Your task to perform on an android device: Open calendar and show me the second week of next month Image 0: 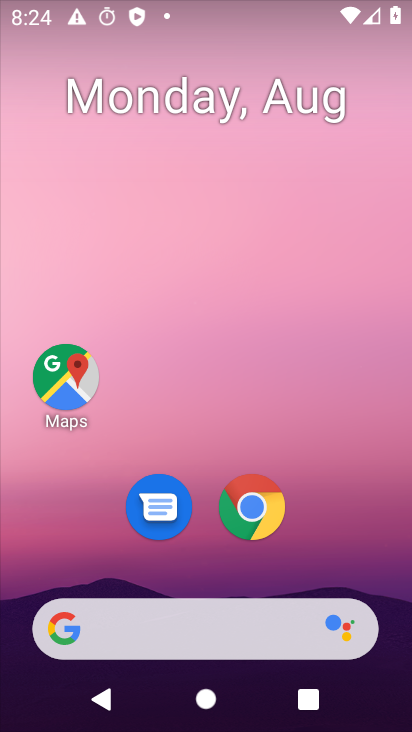
Step 0: drag from (160, 628) to (282, 149)
Your task to perform on an android device: Open calendar and show me the second week of next month Image 1: 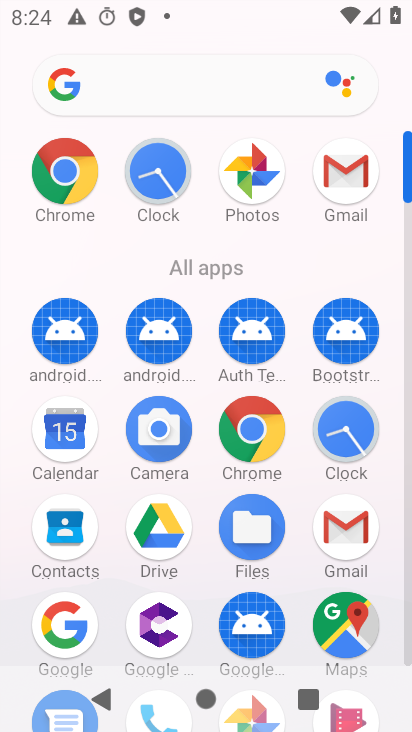
Step 1: click (67, 439)
Your task to perform on an android device: Open calendar and show me the second week of next month Image 2: 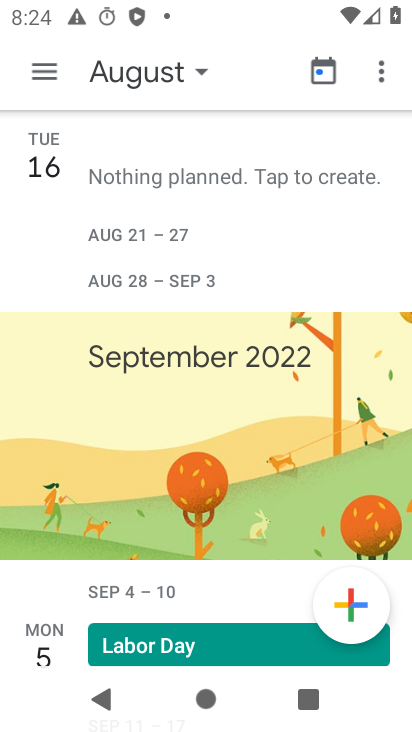
Step 2: click (178, 78)
Your task to perform on an android device: Open calendar and show me the second week of next month Image 3: 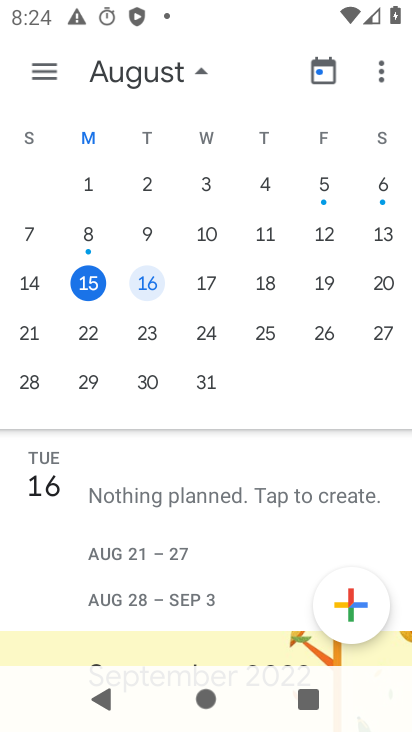
Step 3: drag from (354, 299) to (36, 295)
Your task to perform on an android device: Open calendar and show me the second week of next month Image 4: 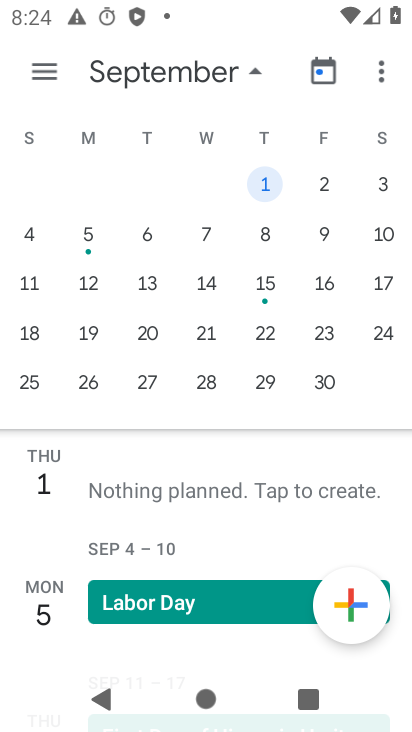
Step 4: click (29, 232)
Your task to perform on an android device: Open calendar and show me the second week of next month Image 5: 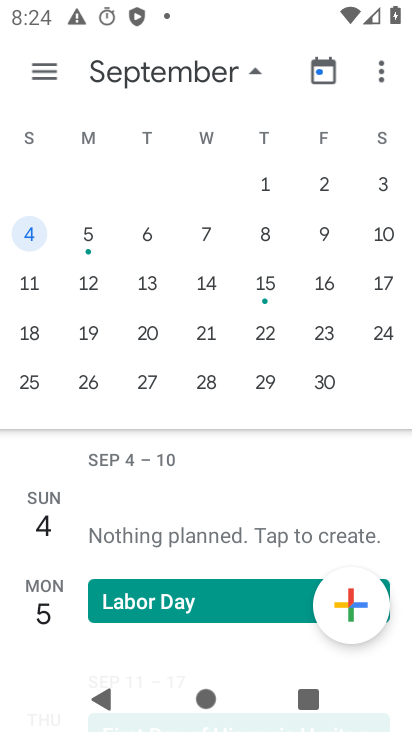
Step 5: click (45, 70)
Your task to perform on an android device: Open calendar and show me the second week of next month Image 6: 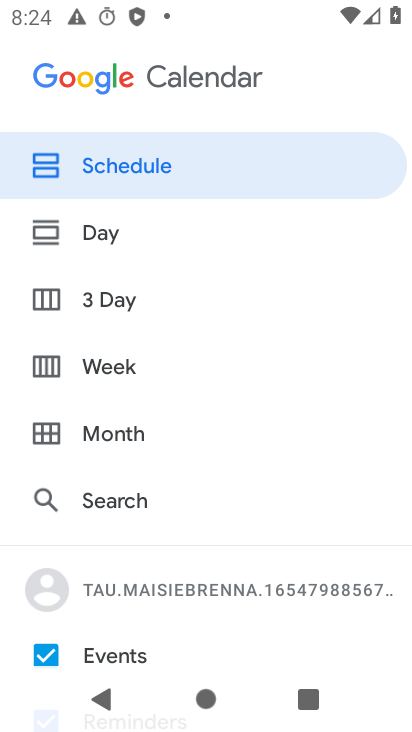
Step 6: click (142, 368)
Your task to perform on an android device: Open calendar and show me the second week of next month Image 7: 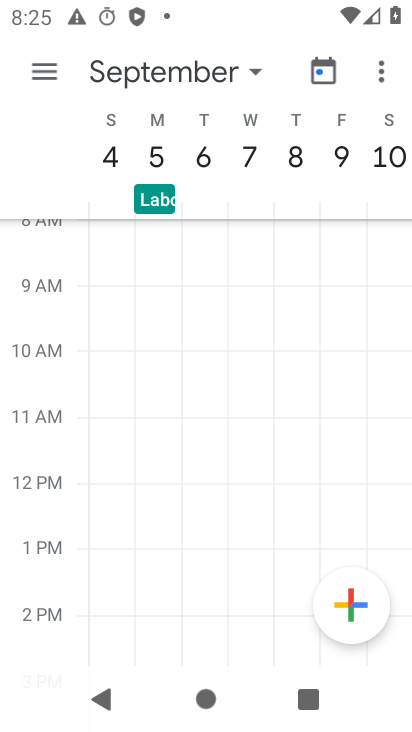
Step 7: task complete